Your task to perform on an android device: Check the news Image 0: 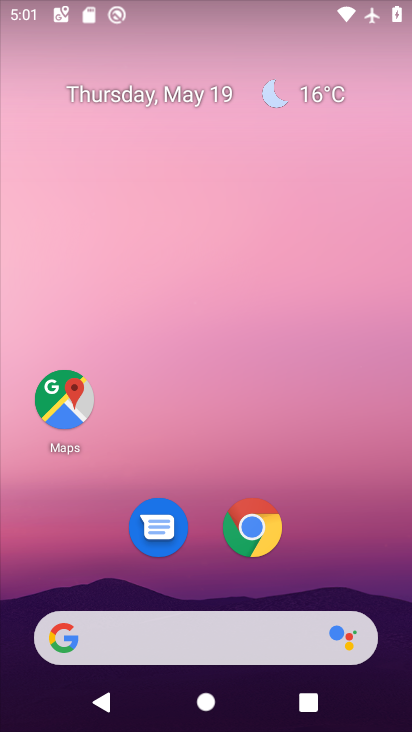
Step 0: drag from (333, 478) to (96, 6)
Your task to perform on an android device: Check the news Image 1: 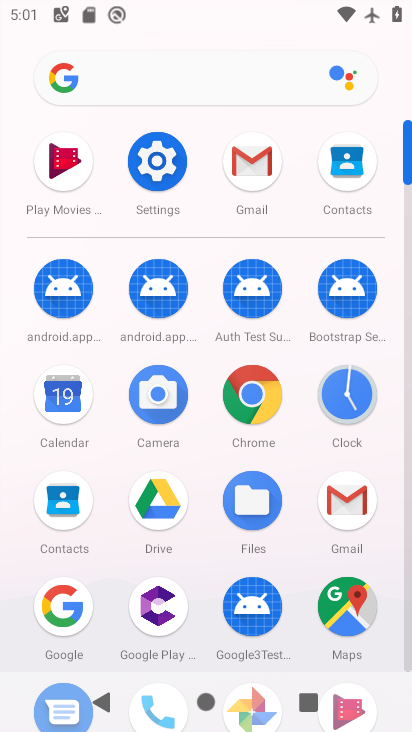
Step 1: click (69, 609)
Your task to perform on an android device: Check the news Image 2: 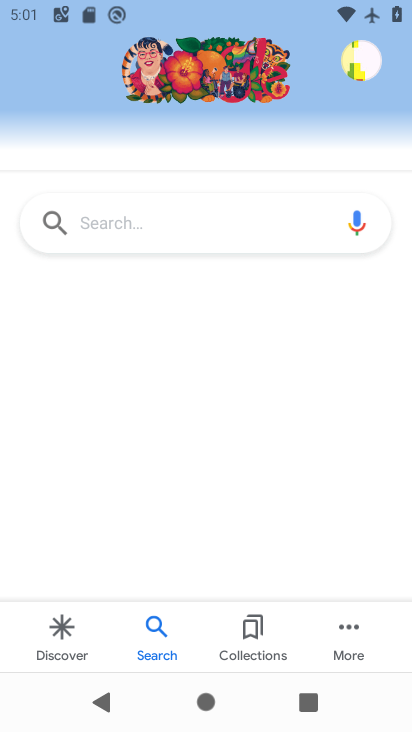
Step 2: click (178, 225)
Your task to perform on an android device: Check the news Image 3: 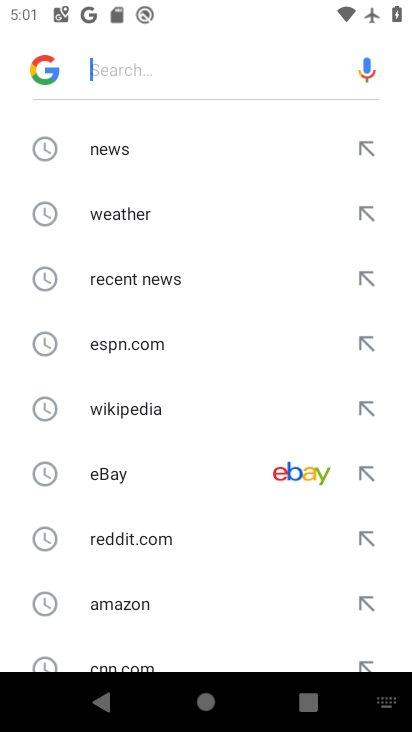
Step 3: click (137, 158)
Your task to perform on an android device: Check the news Image 4: 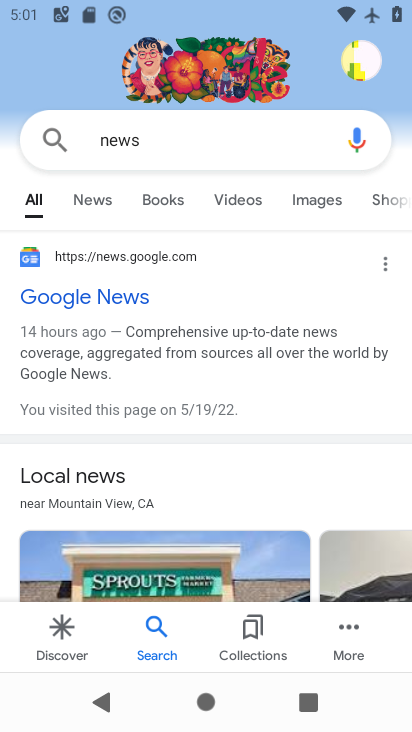
Step 4: click (96, 200)
Your task to perform on an android device: Check the news Image 5: 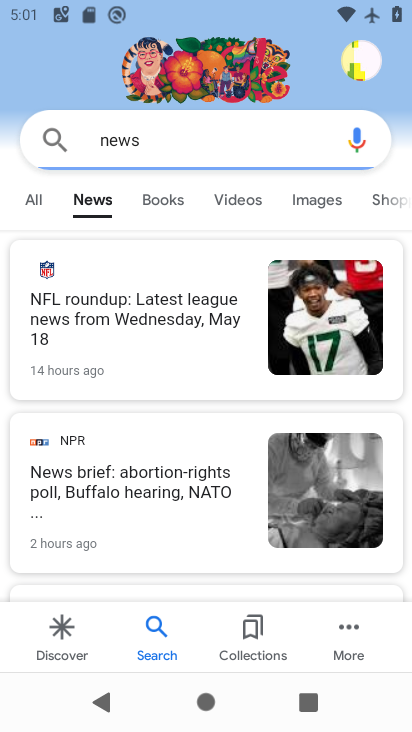
Step 5: task complete